Your task to perform on an android device: Is it going to rain today? Image 0: 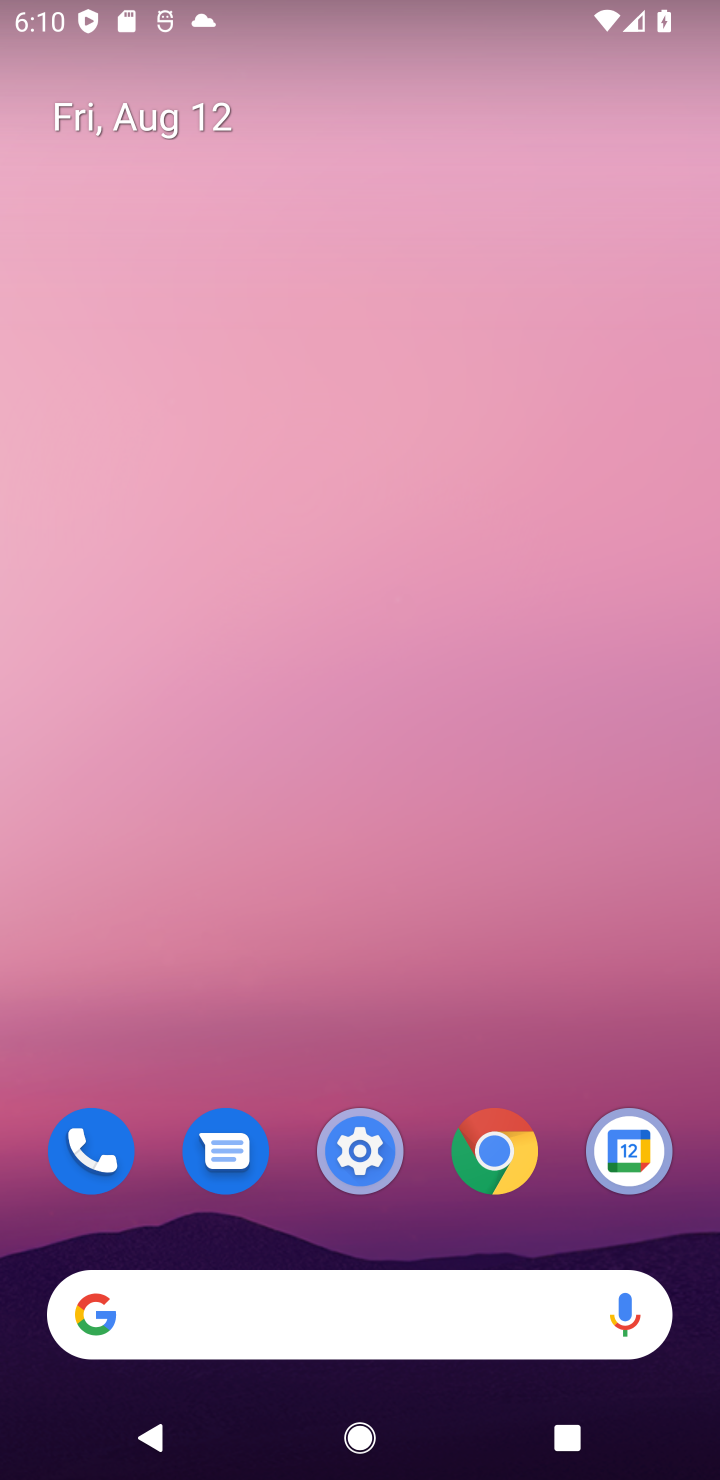
Step 0: drag from (423, 1065) to (428, 123)
Your task to perform on an android device: Is it going to rain today? Image 1: 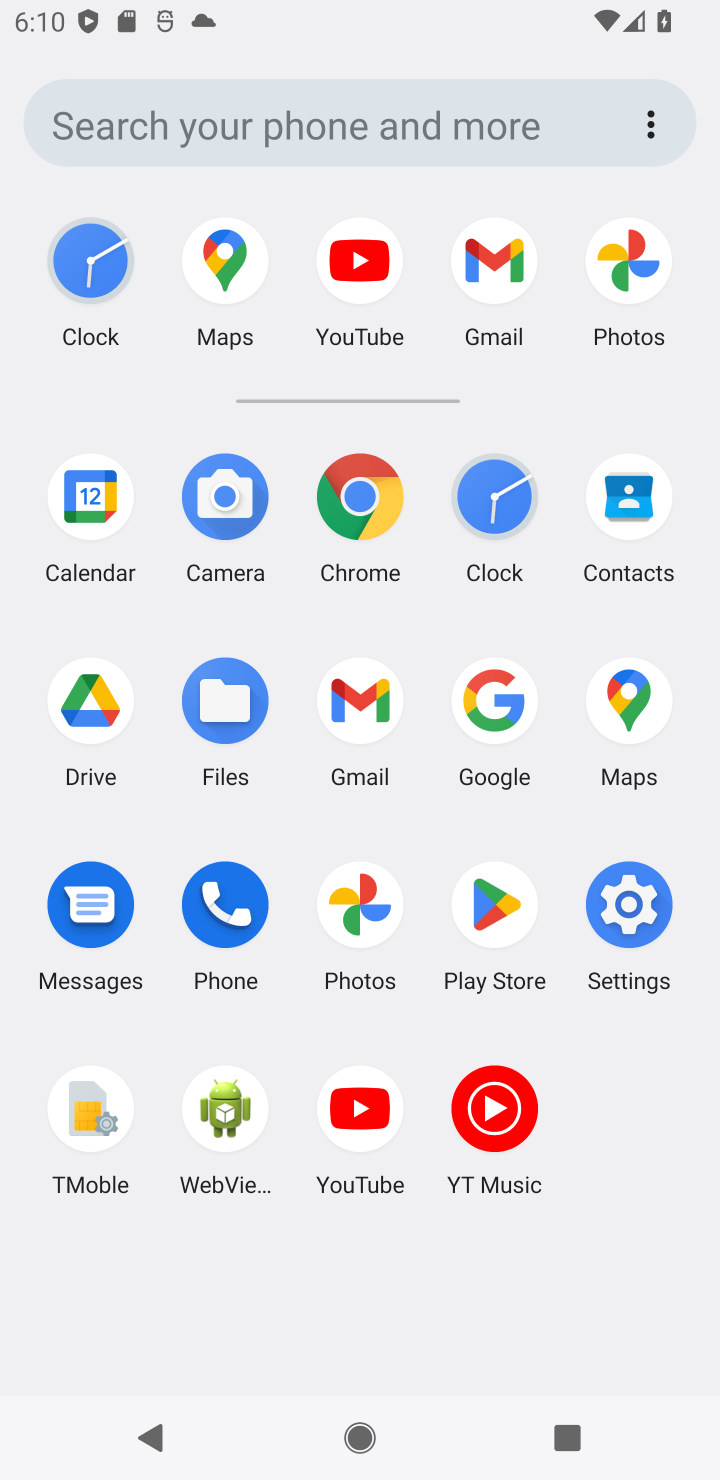
Step 1: click (363, 495)
Your task to perform on an android device: Is it going to rain today? Image 2: 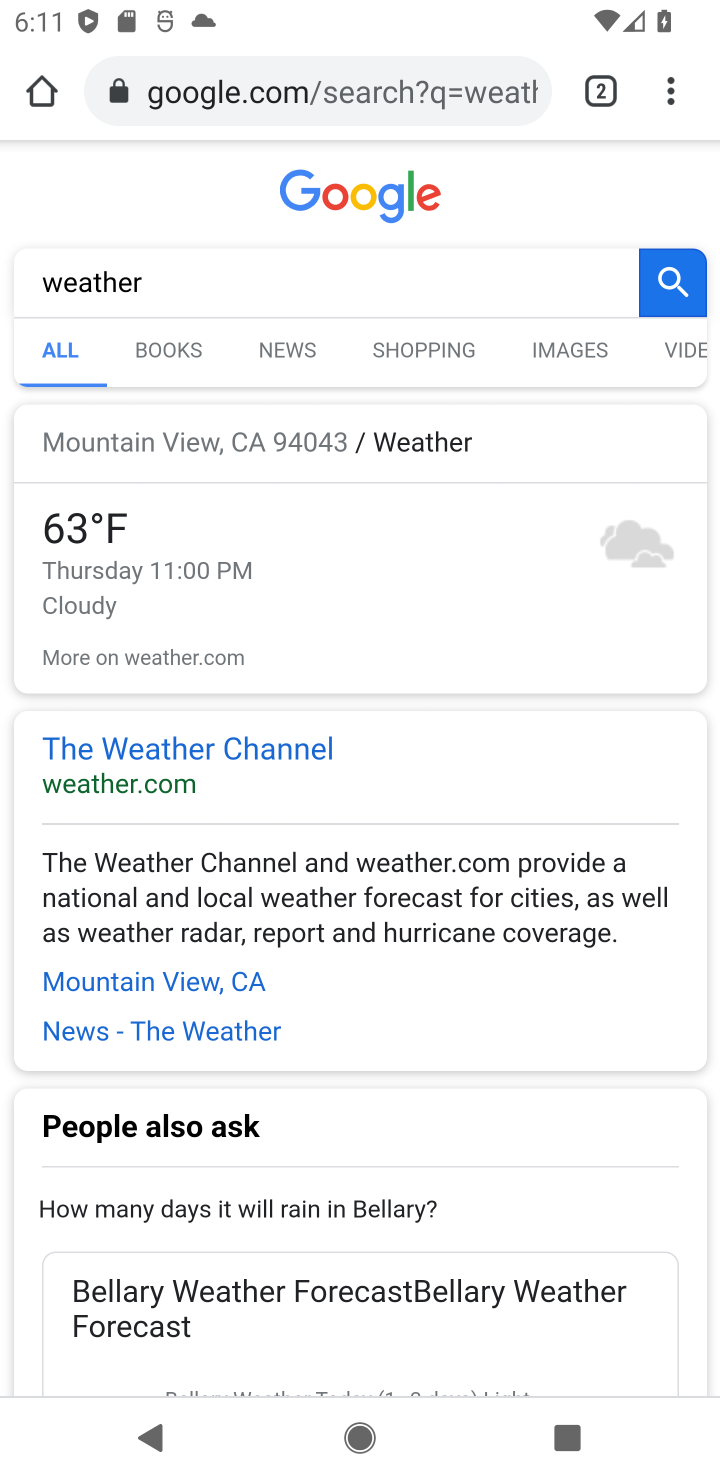
Step 2: task complete